Your task to perform on an android device: delete the emails in spam in the gmail app Image 0: 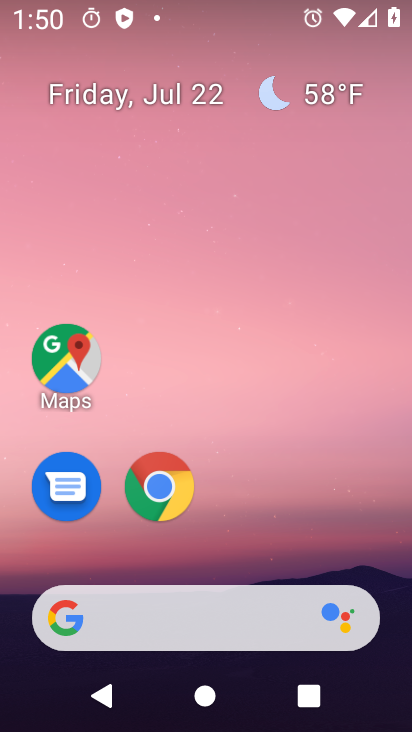
Step 0: press home button
Your task to perform on an android device: delete the emails in spam in the gmail app Image 1: 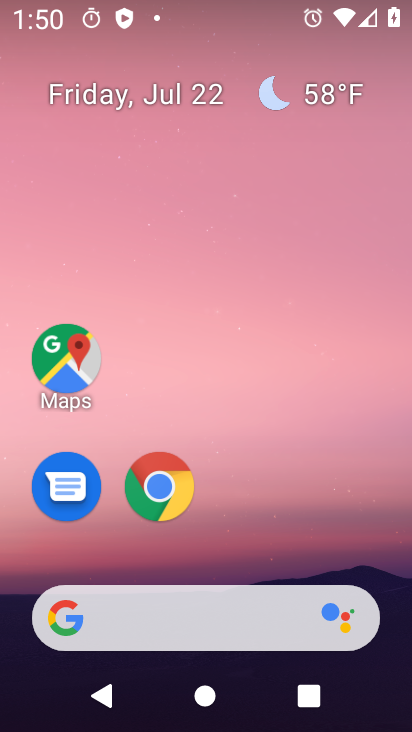
Step 1: drag from (386, 504) to (368, 73)
Your task to perform on an android device: delete the emails in spam in the gmail app Image 2: 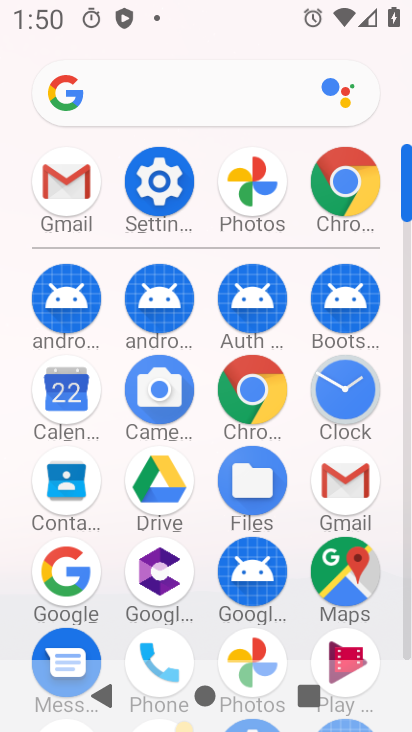
Step 2: click (350, 473)
Your task to perform on an android device: delete the emails in spam in the gmail app Image 3: 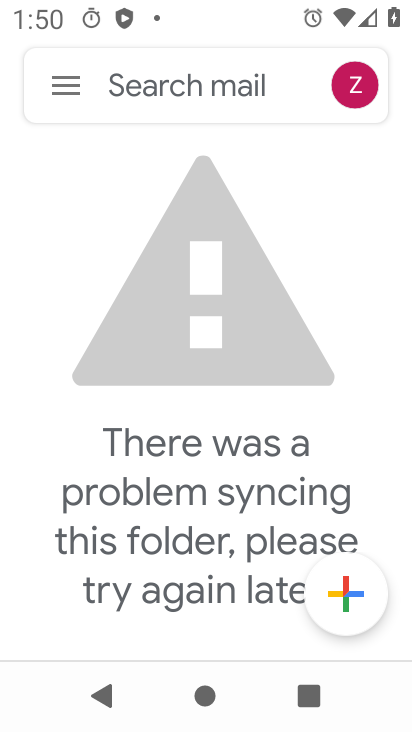
Step 3: click (59, 88)
Your task to perform on an android device: delete the emails in spam in the gmail app Image 4: 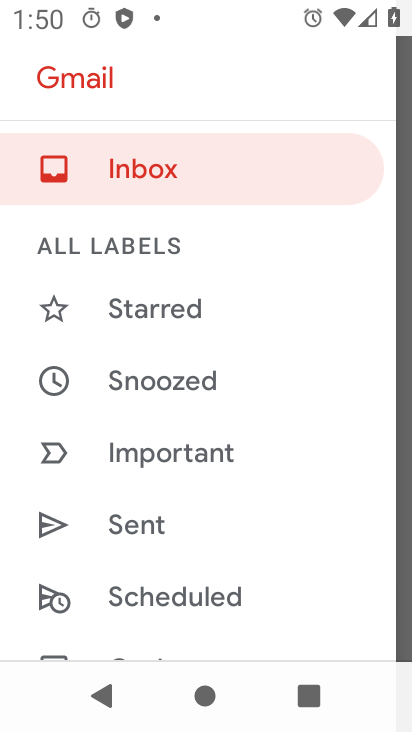
Step 4: drag from (266, 364) to (269, 315)
Your task to perform on an android device: delete the emails in spam in the gmail app Image 5: 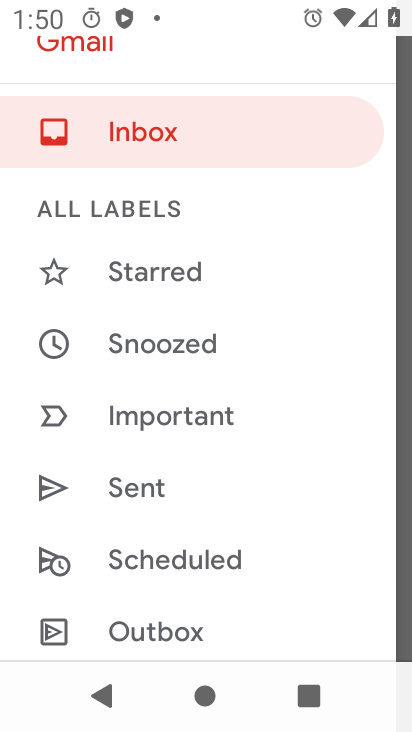
Step 5: drag from (279, 382) to (282, 315)
Your task to perform on an android device: delete the emails in spam in the gmail app Image 6: 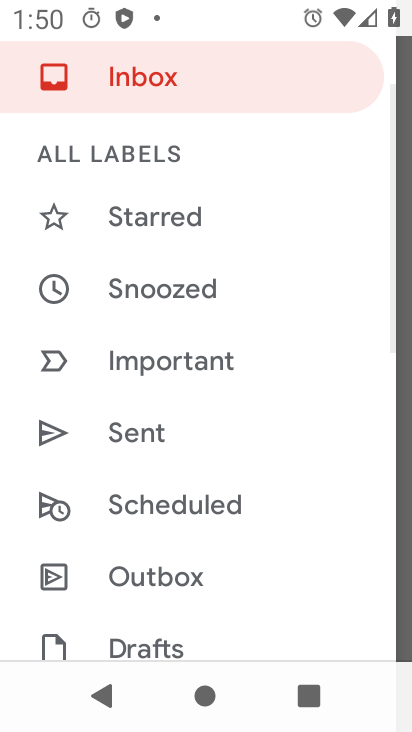
Step 6: drag from (286, 411) to (288, 310)
Your task to perform on an android device: delete the emails in spam in the gmail app Image 7: 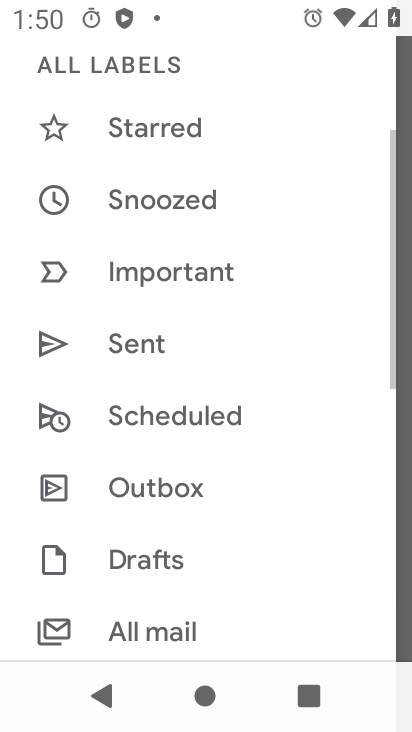
Step 7: drag from (279, 401) to (279, 325)
Your task to perform on an android device: delete the emails in spam in the gmail app Image 8: 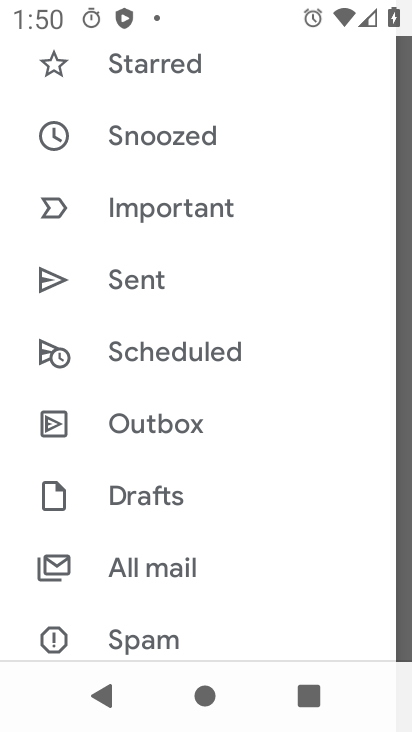
Step 8: drag from (278, 399) to (278, 335)
Your task to perform on an android device: delete the emails in spam in the gmail app Image 9: 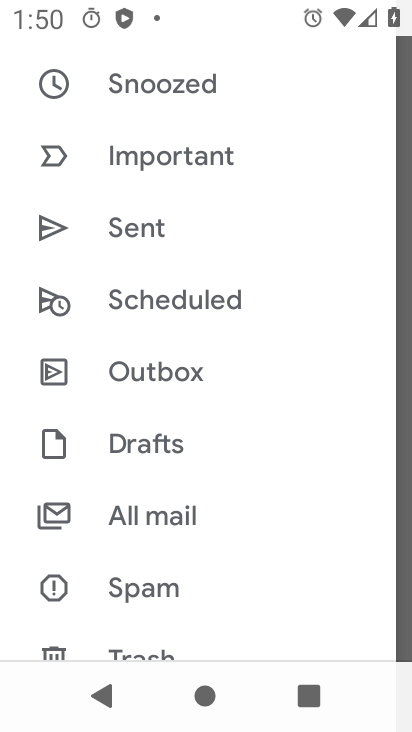
Step 9: drag from (279, 449) to (289, 366)
Your task to perform on an android device: delete the emails in spam in the gmail app Image 10: 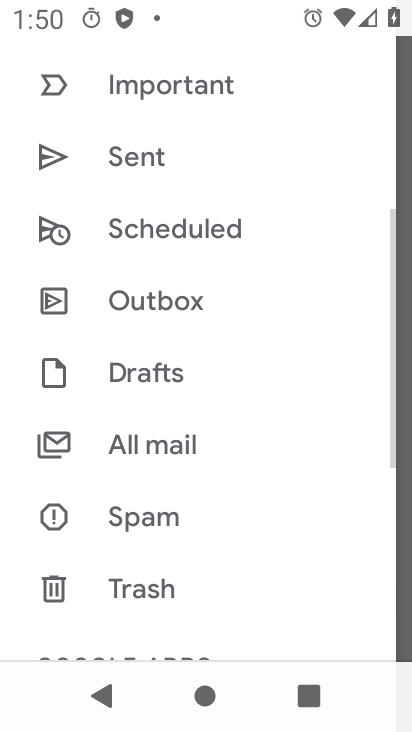
Step 10: drag from (280, 474) to (279, 390)
Your task to perform on an android device: delete the emails in spam in the gmail app Image 11: 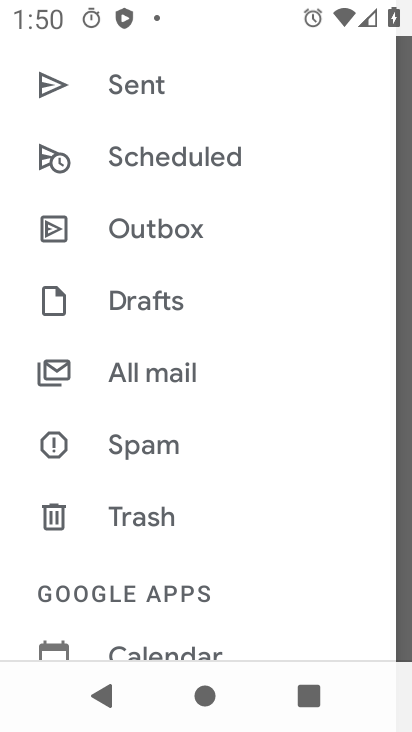
Step 11: drag from (277, 467) to (275, 407)
Your task to perform on an android device: delete the emails in spam in the gmail app Image 12: 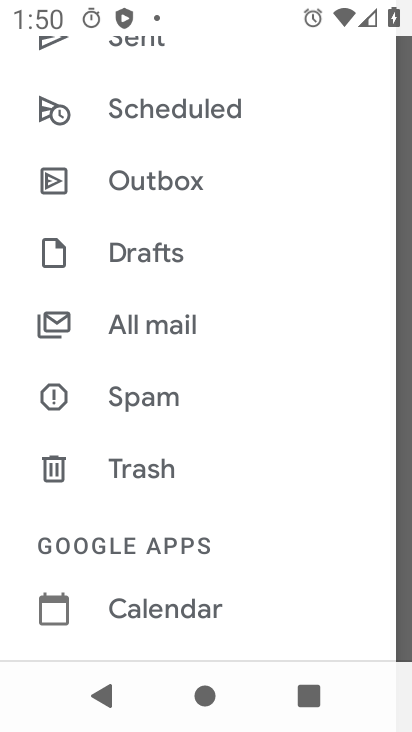
Step 12: click (275, 407)
Your task to perform on an android device: delete the emails in spam in the gmail app Image 13: 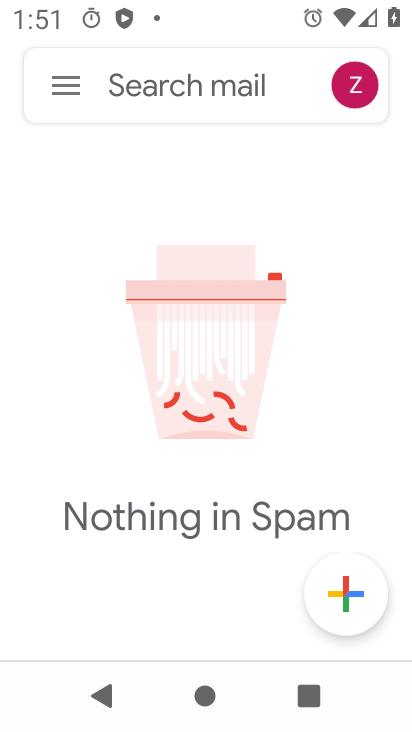
Step 13: task complete